Your task to perform on an android device: Go to CNN.com Image 0: 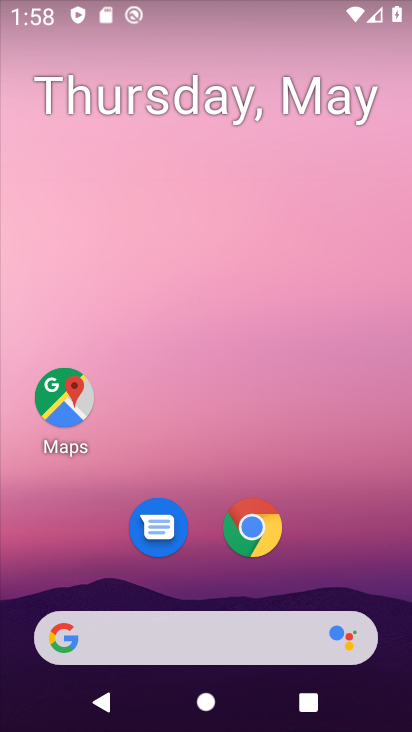
Step 0: click (242, 528)
Your task to perform on an android device: Go to CNN.com Image 1: 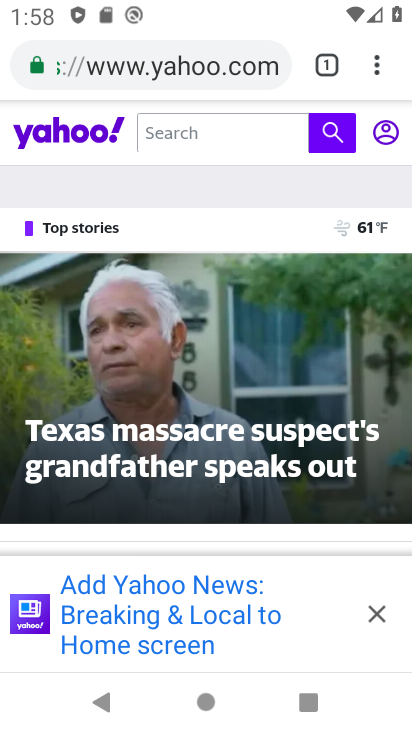
Step 1: click (221, 71)
Your task to perform on an android device: Go to CNN.com Image 2: 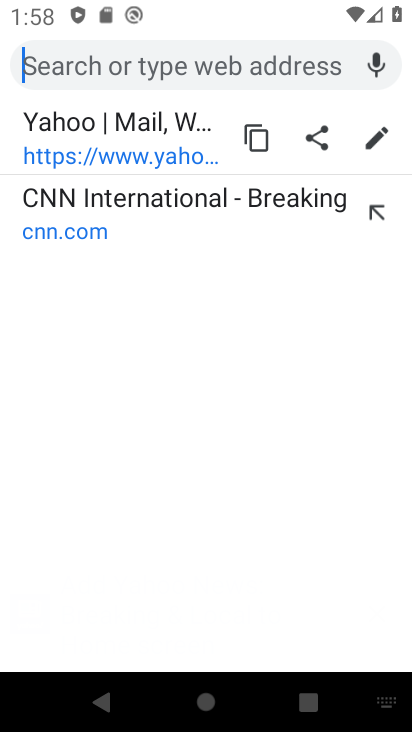
Step 2: type "CNN.com"
Your task to perform on an android device: Go to CNN.com Image 3: 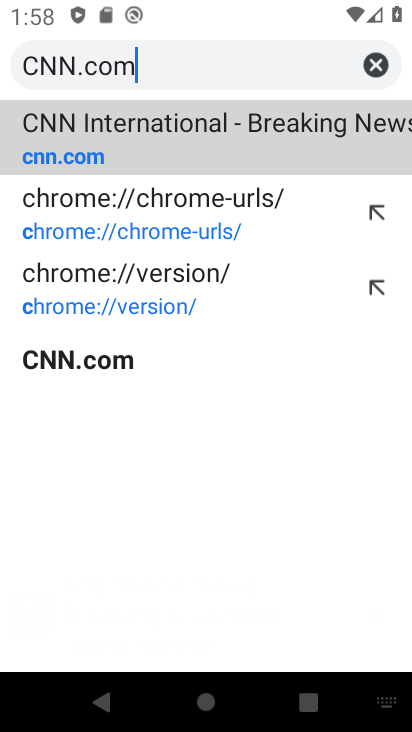
Step 3: click (71, 140)
Your task to perform on an android device: Go to CNN.com Image 4: 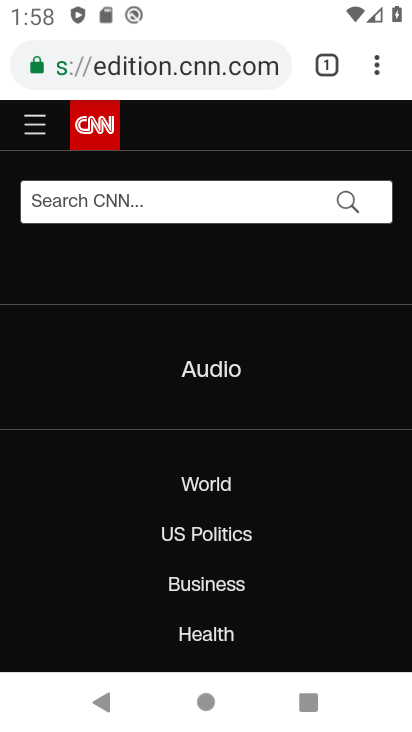
Step 4: task complete